Your task to perform on an android device: open app "PUBG MOBILE" (install if not already installed) Image 0: 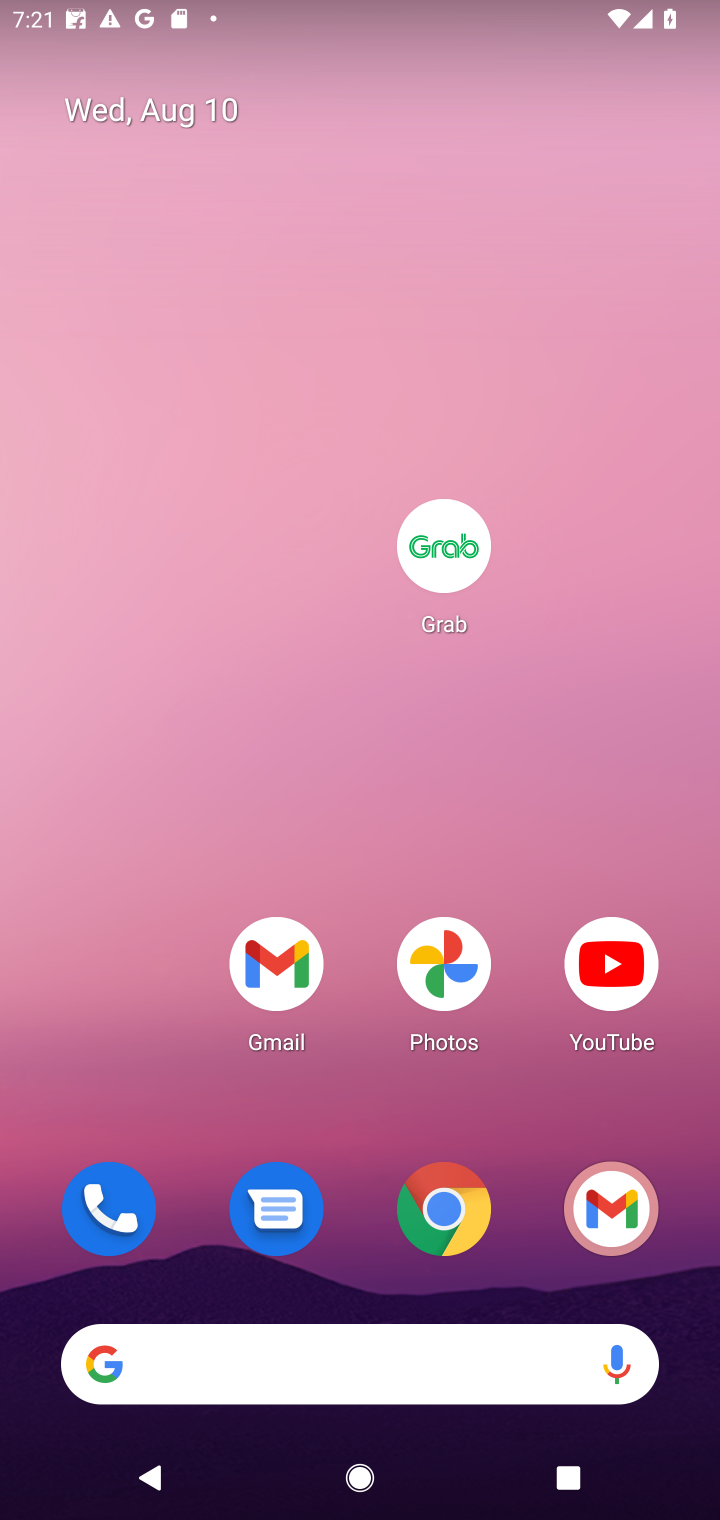
Step 0: drag from (391, 1317) to (375, 1)
Your task to perform on an android device: open app "PUBG MOBILE" (install if not already installed) Image 1: 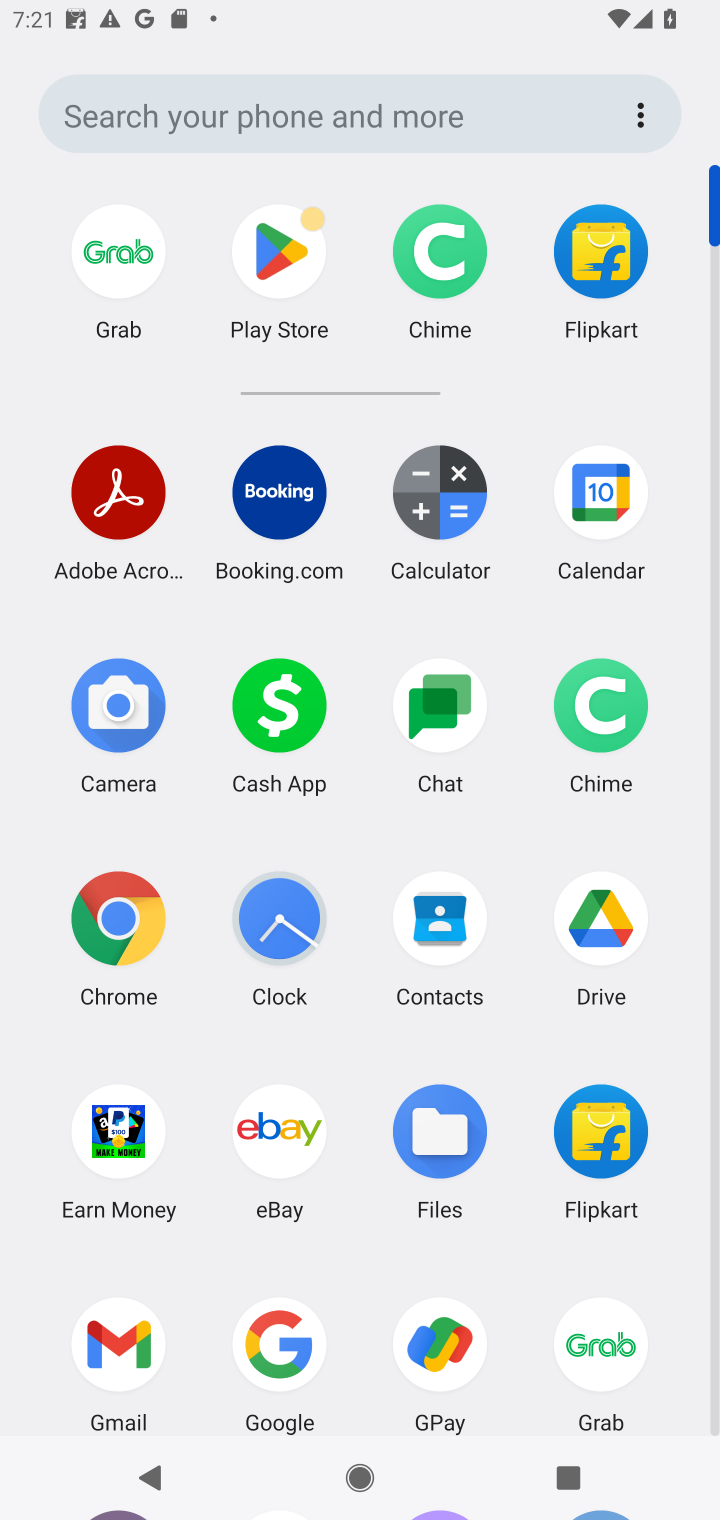
Step 1: click (281, 287)
Your task to perform on an android device: open app "PUBG MOBILE" (install if not already installed) Image 2: 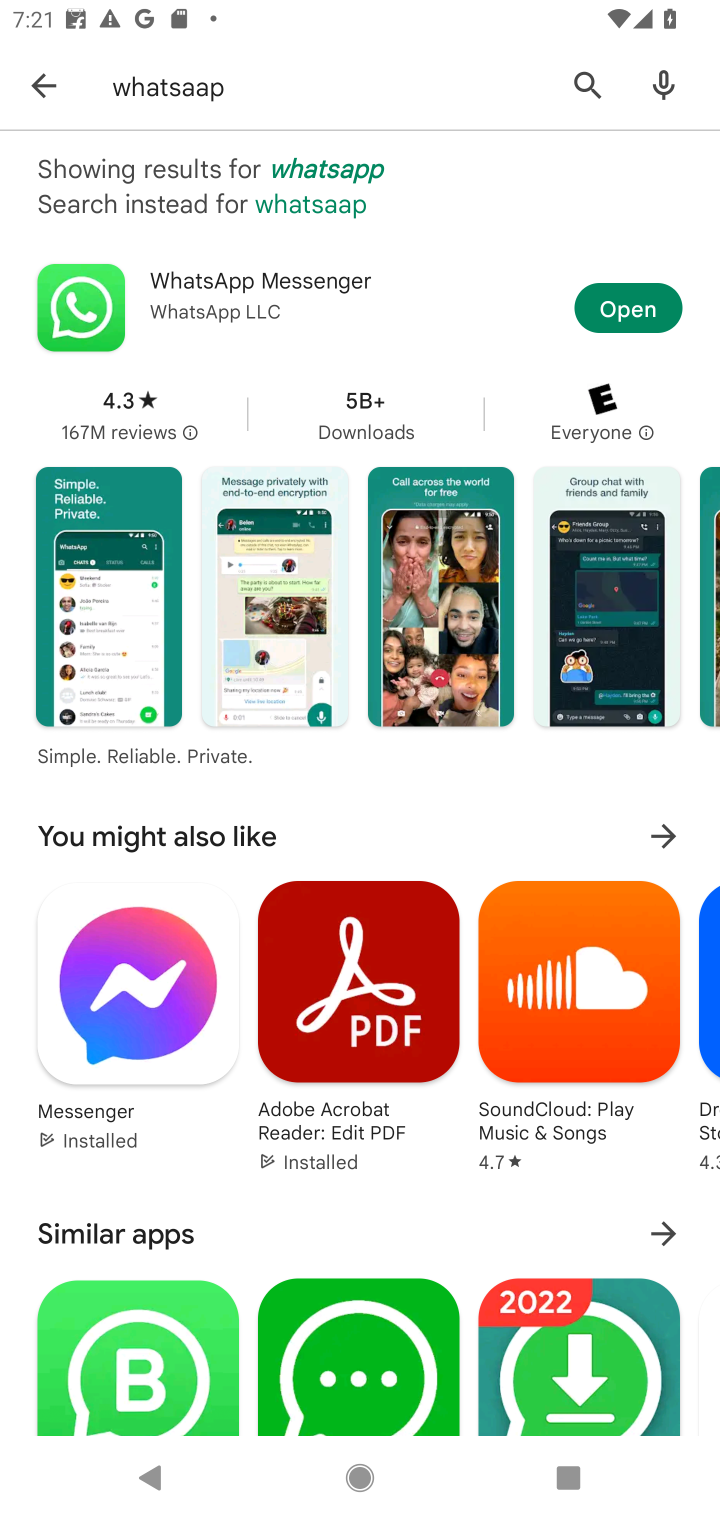
Step 2: click (587, 57)
Your task to perform on an android device: open app "PUBG MOBILE" (install if not already installed) Image 3: 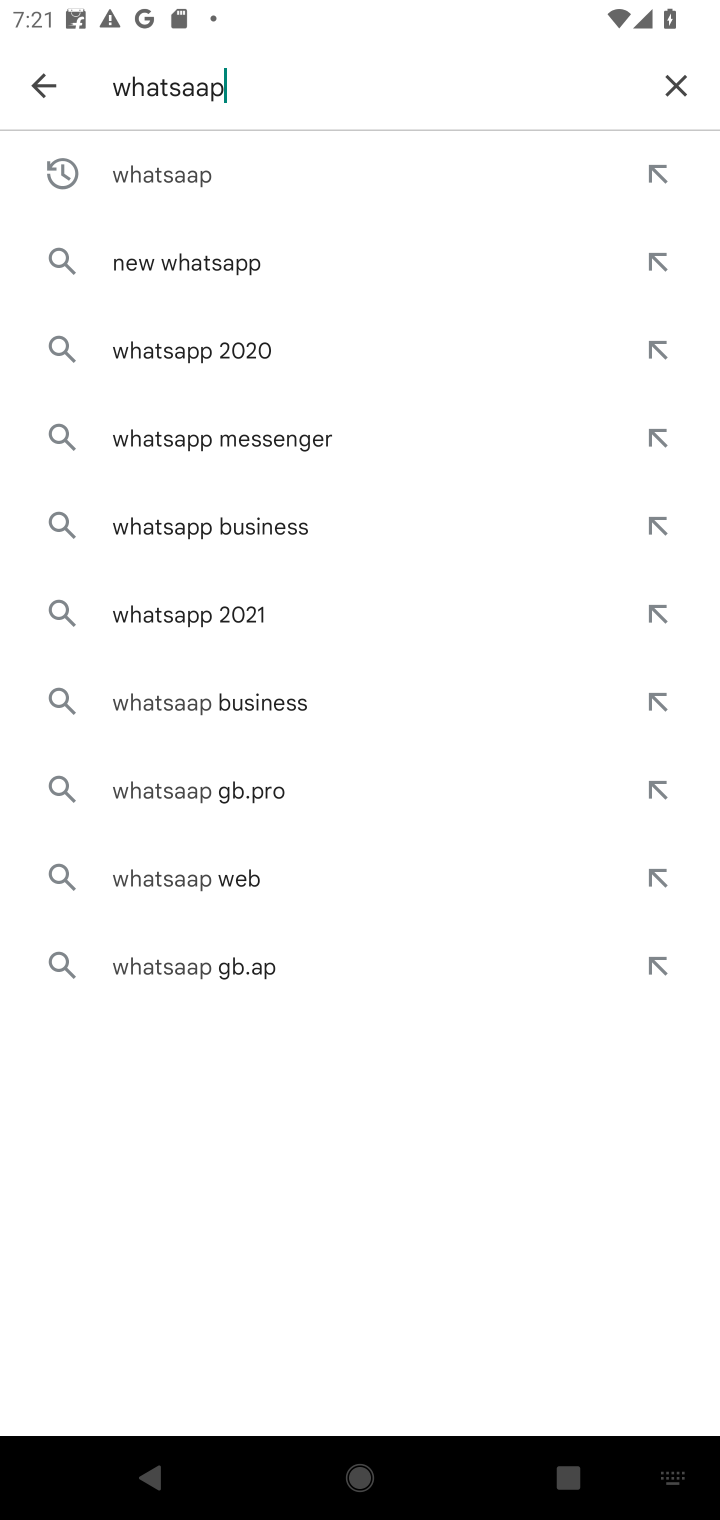
Step 3: click (653, 79)
Your task to perform on an android device: open app "PUBG MOBILE" (install if not already installed) Image 4: 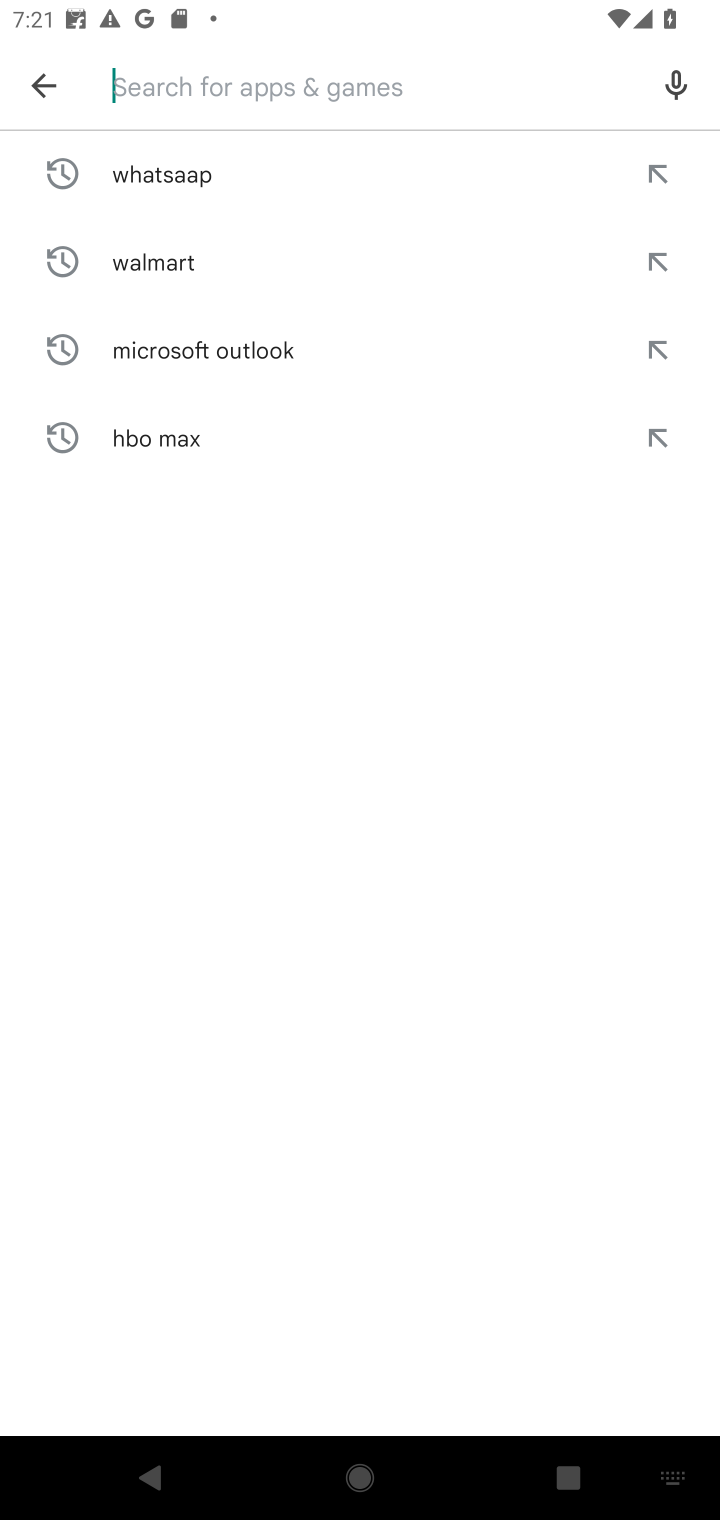
Step 4: type "pubg"
Your task to perform on an android device: open app "PUBG MOBILE" (install if not already installed) Image 5: 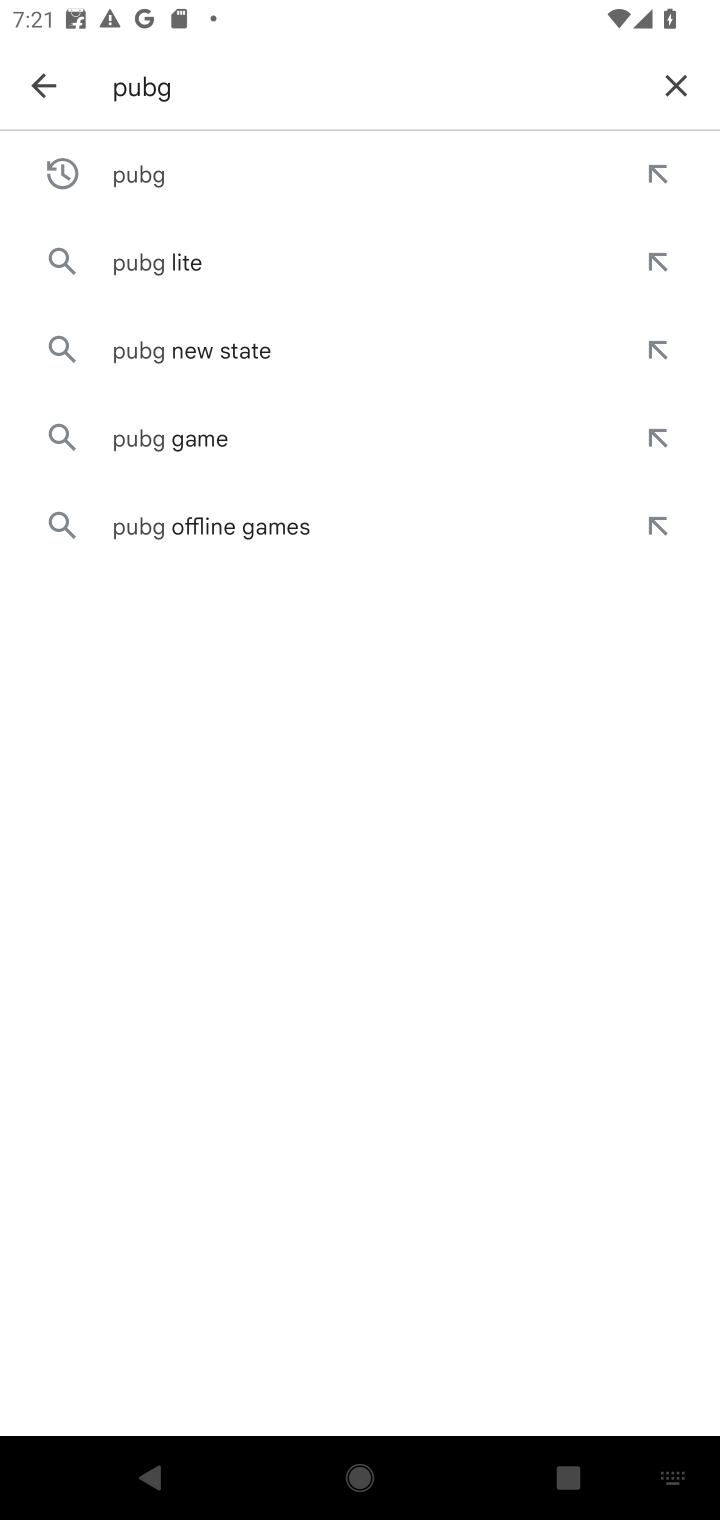
Step 5: click (226, 174)
Your task to perform on an android device: open app "PUBG MOBILE" (install if not already installed) Image 6: 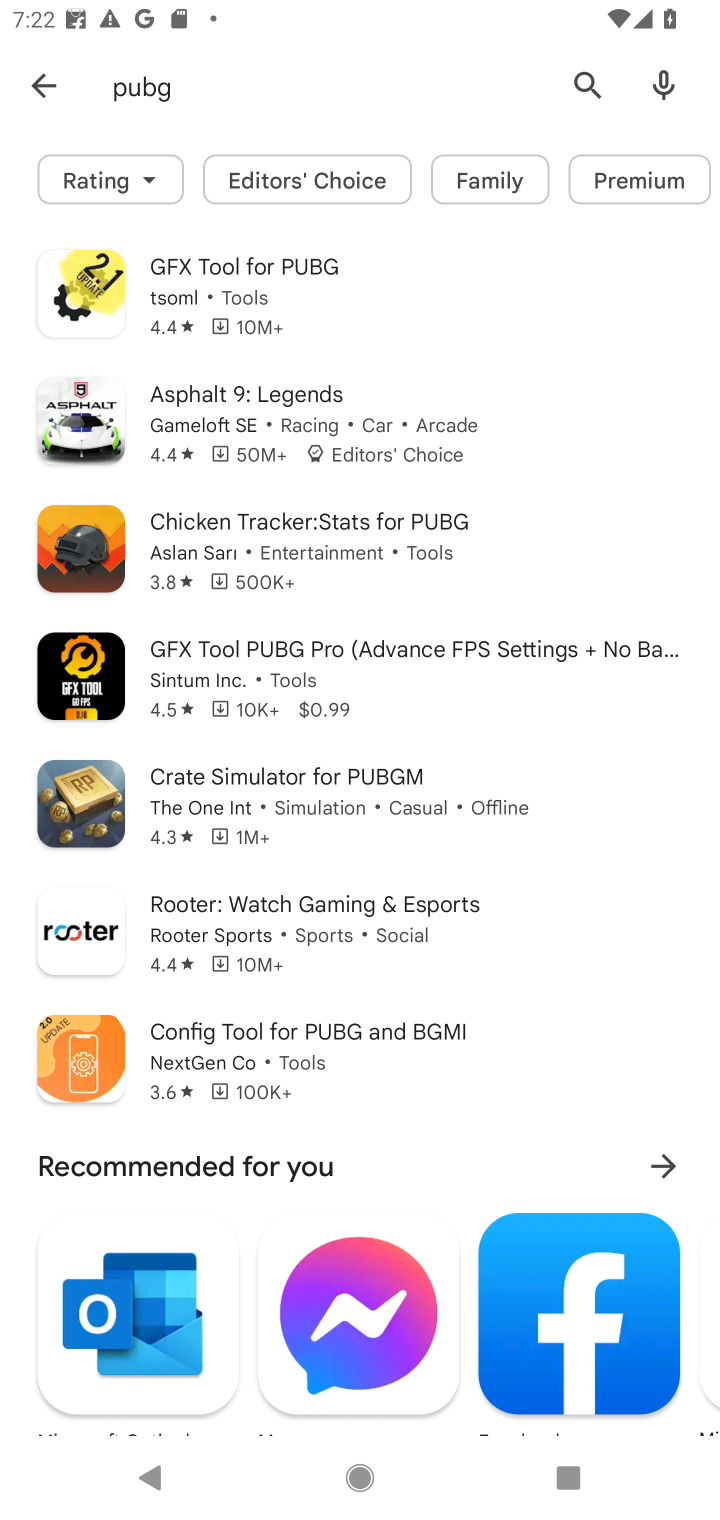
Step 6: task complete